Your task to perform on an android device: Go to Wikipedia Image 0: 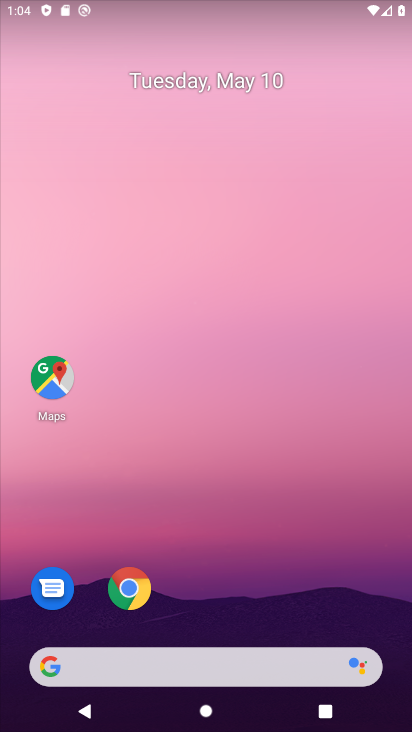
Step 0: drag from (259, 687) to (293, 331)
Your task to perform on an android device: Go to Wikipedia Image 1: 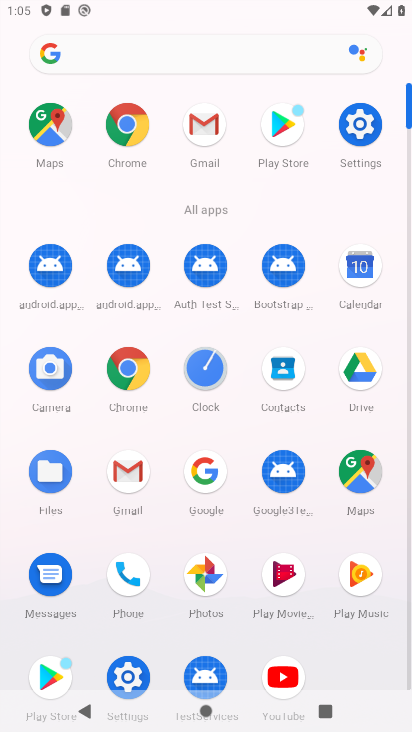
Step 1: click (121, 120)
Your task to perform on an android device: Go to Wikipedia Image 2: 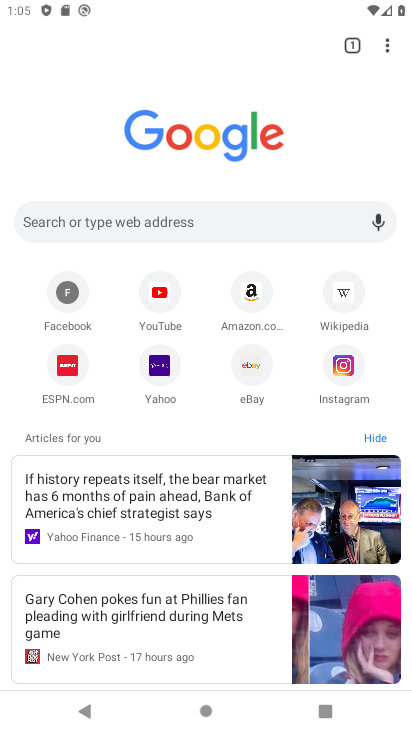
Step 2: click (341, 304)
Your task to perform on an android device: Go to Wikipedia Image 3: 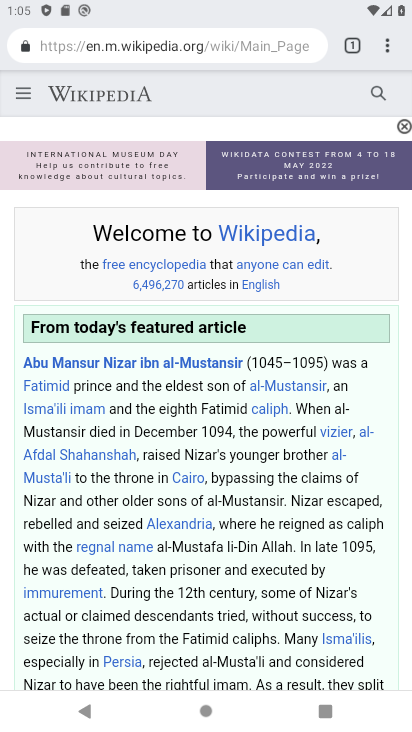
Step 3: click (172, 42)
Your task to perform on an android device: Go to Wikipedia Image 4: 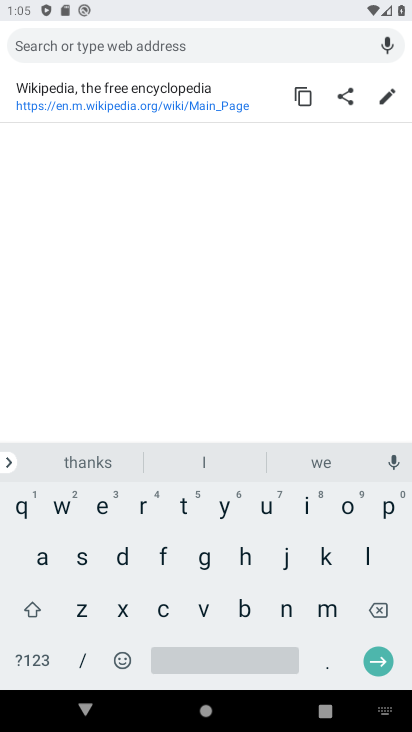
Step 4: click (118, 92)
Your task to perform on an android device: Go to Wikipedia Image 5: 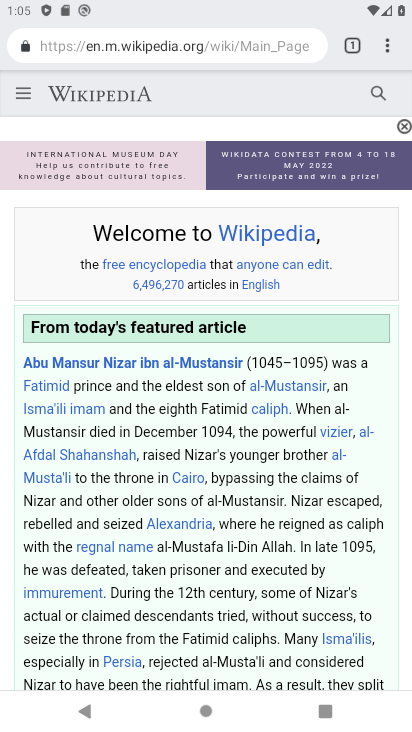
Step 5: task complete